Your task to perform on an android device: Open the calendar and show me this week's events? Image 0: 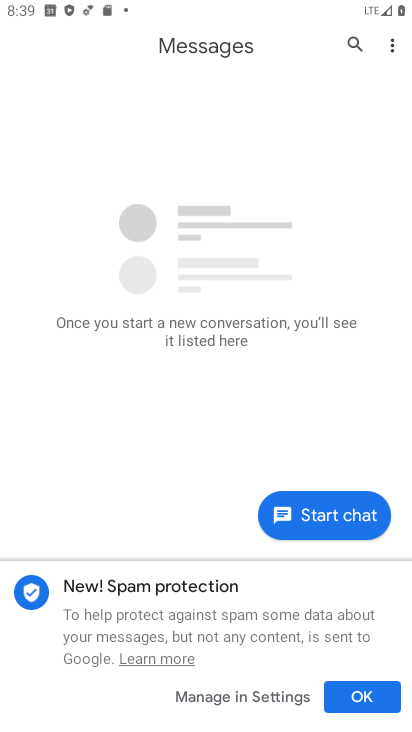
Step 0: press back button
Your task to perform on an android device: Open the calendar and show me this week's events? Image 1: 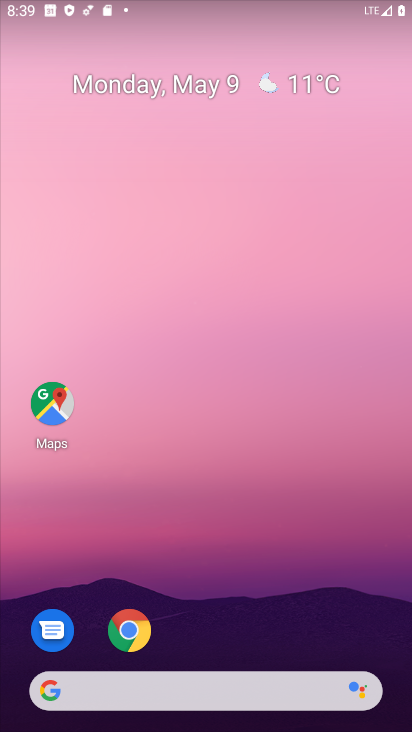
Step 1: drag from (167, 664) to (255, 67)
Your task to perform on an android device: Open the calendar and show me this week's events? Image 2: 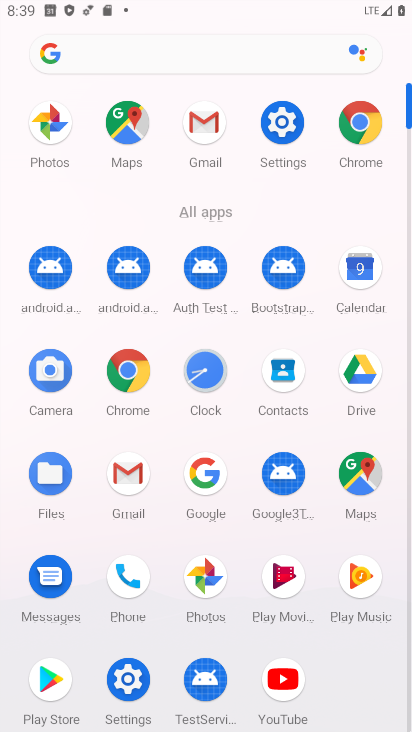
Step 2: click (374, 268)
Your task to perform on an android device: Open the calendar and show me this week's events? Image 3: 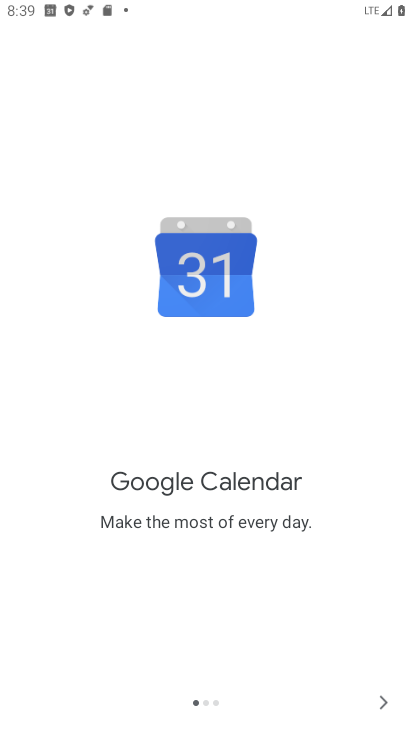
Step 3: click (376, 707)
Your task to perform on an android device: Open the calendar and show me this week's events? Image 4: 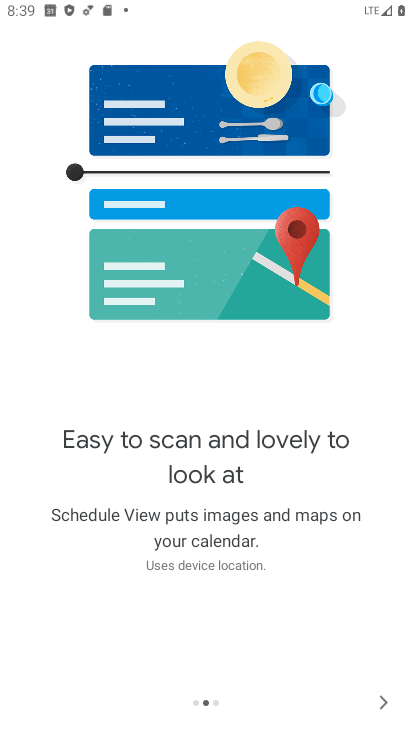
Step 4: click (376, 707)
Your task to perform on an android device: Open the calendar and show me this week's events? Image 5: 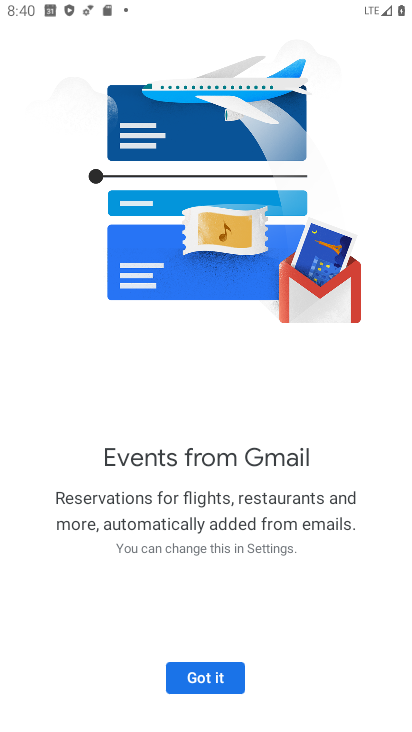
Step 5: click (232, 676)
Your task to perform on an android device: Open the calendar and show me this week's events? Image 6: 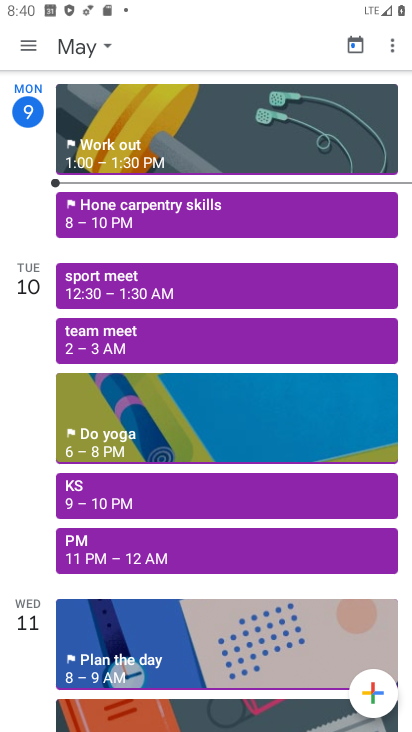
Step 6: click (43, 47)
Your task to perform on an android device: Open the calendar and show me this week's events? Image 7: 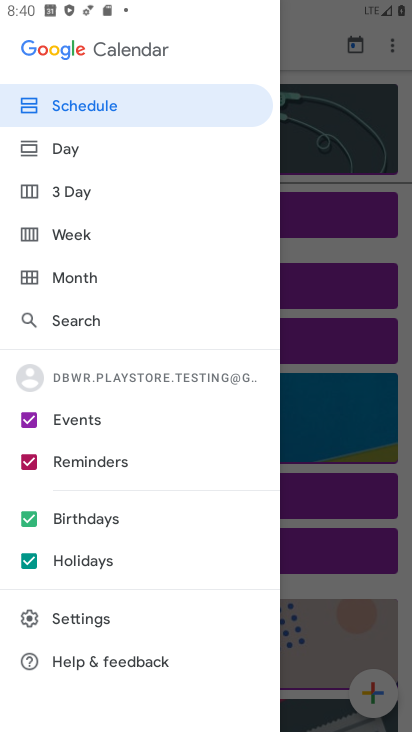
Step 7: click (101, 229)
Your task to perform on an android device: Open the calendar and show me this week's events? Image 8: 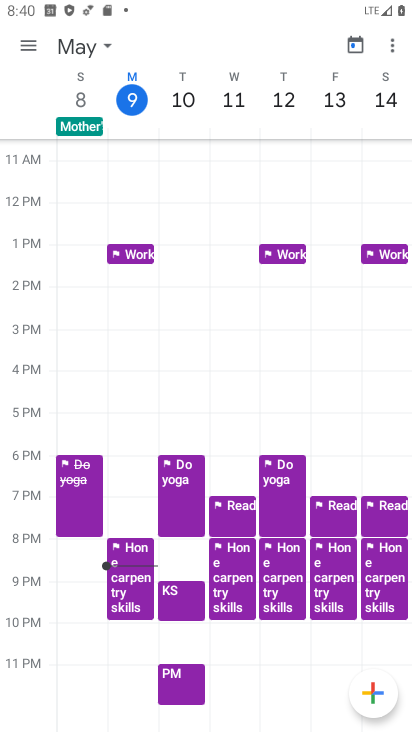
Step 8: task complete